Your task to perform on an android device: change text size in settings app Image 0: 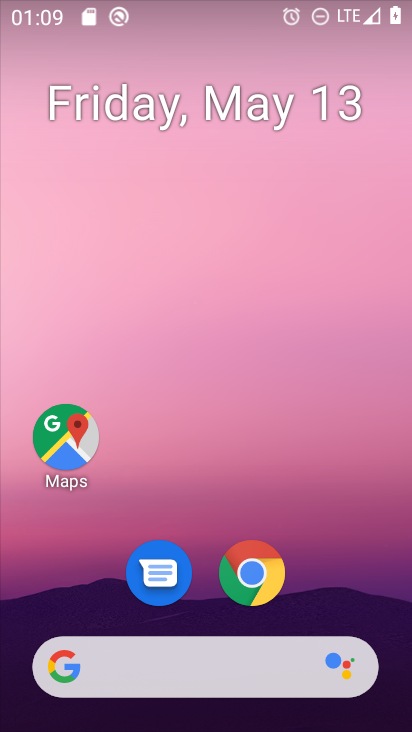
Step 0: drag from (254, 721) to (252, 108)
Your task to perform on an android device: change text size in settings app Image 1: 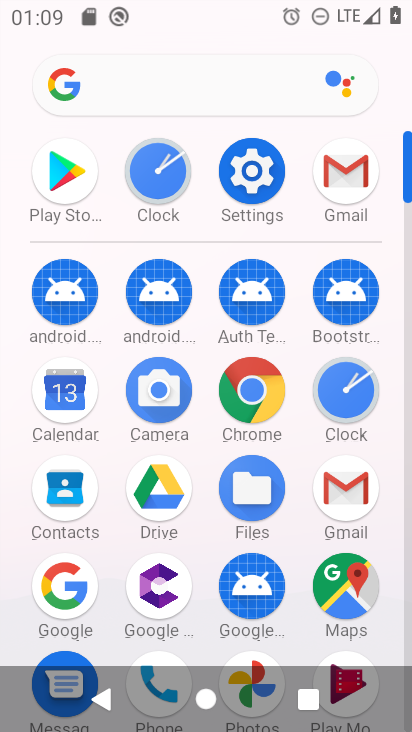
Step 1: click (244, 163)
Your task to perform on an android device: change text size in settings app Image 2: 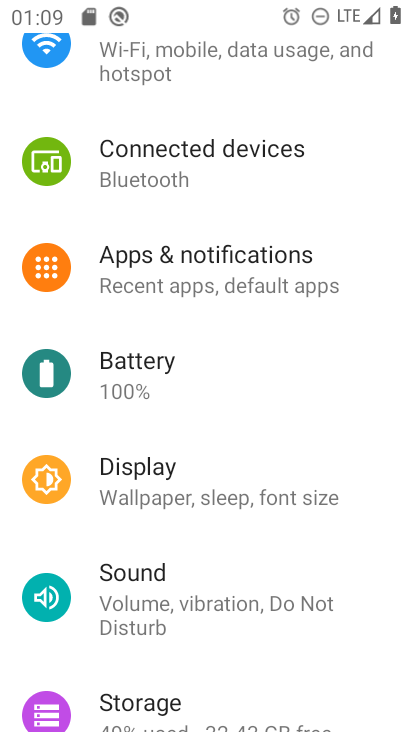
Step 2: click (275, 503)
Your task to perform on an android device: change text size in settings app Image 3: 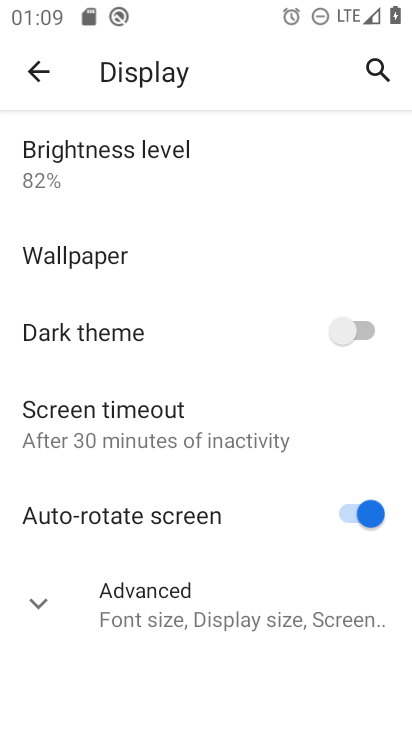
Step 3: click (213, 607)
Your task to perform on an android device: change text size in settings app Image 4: 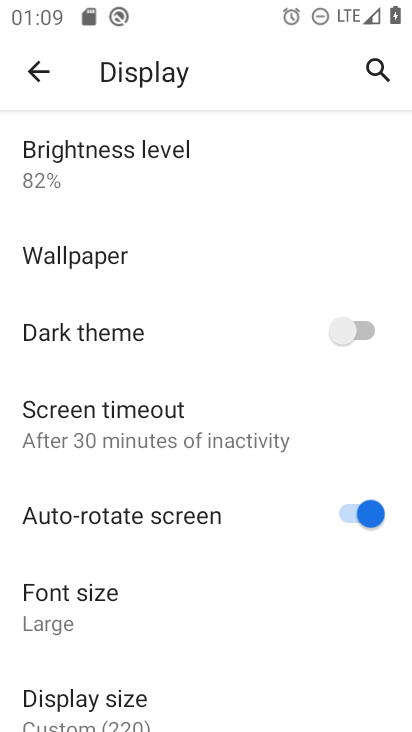
Step 4: click (165, 602)
Your task to perform on an android device: change text size in settings app Image 5: 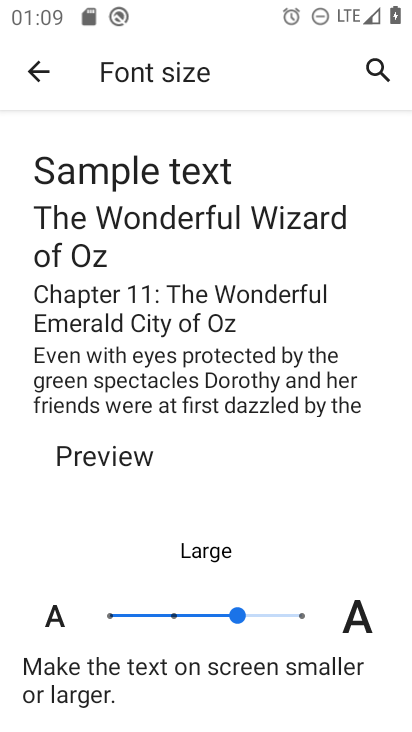
Step 5: click (104, 619)
Your task to perform on an android device: change text size in settings app Image 6: 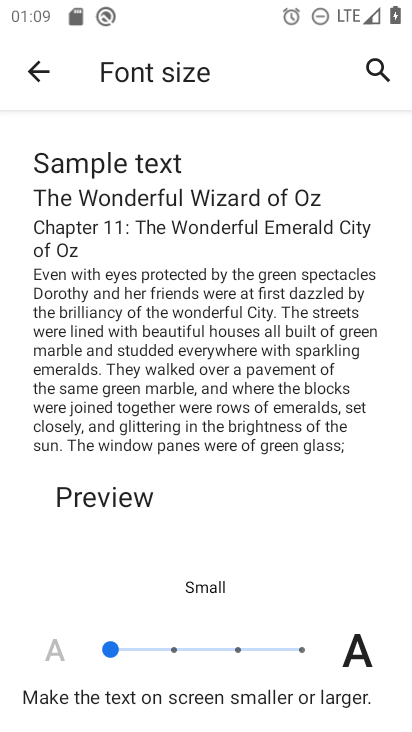
Step 6: task complete